Your task to perform on an android device: What's the weather? Image 0: 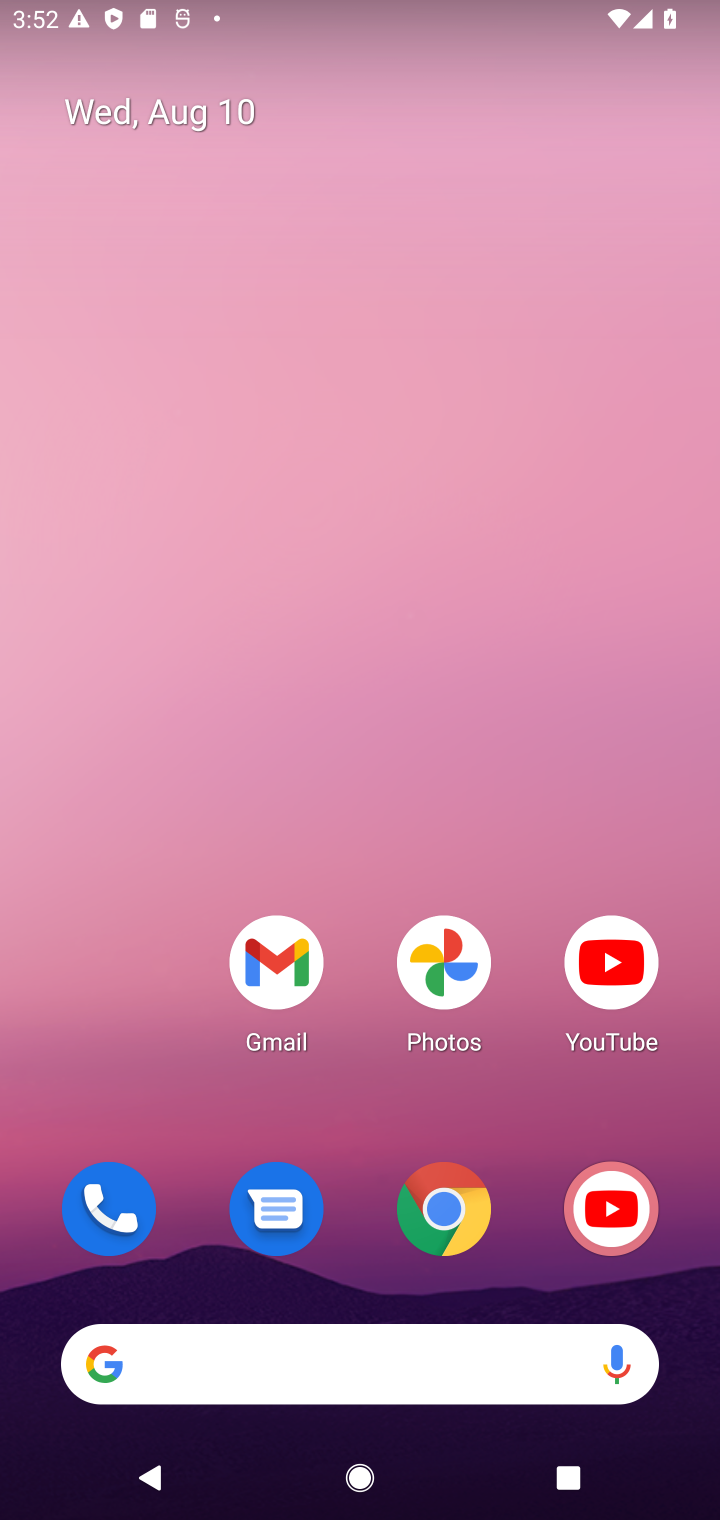
Step 0: click (349, 1365)
Your task to perform on an android device: What's the weather? Image 1: 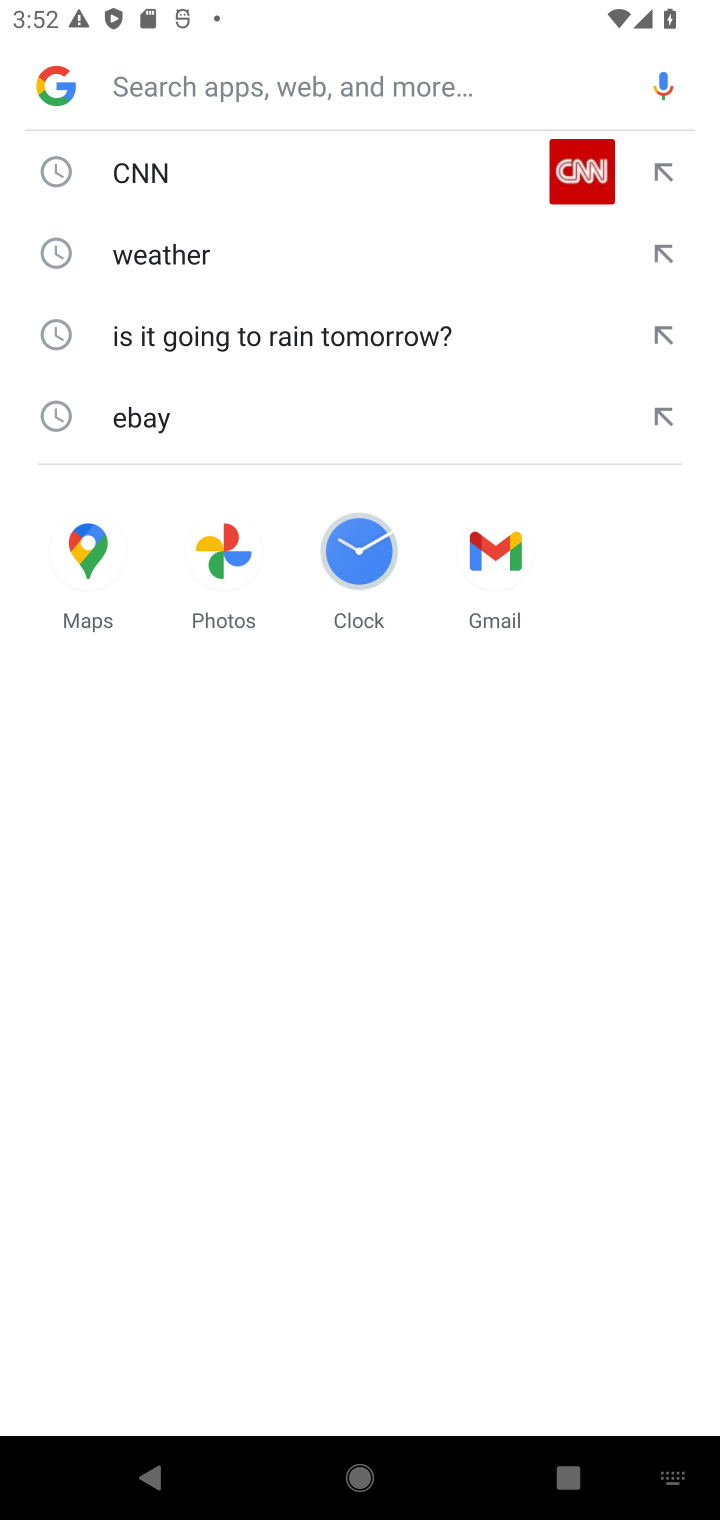
Step 1: click (305, 271)
Your task to perform on an android device: What's the weather? Image 2: 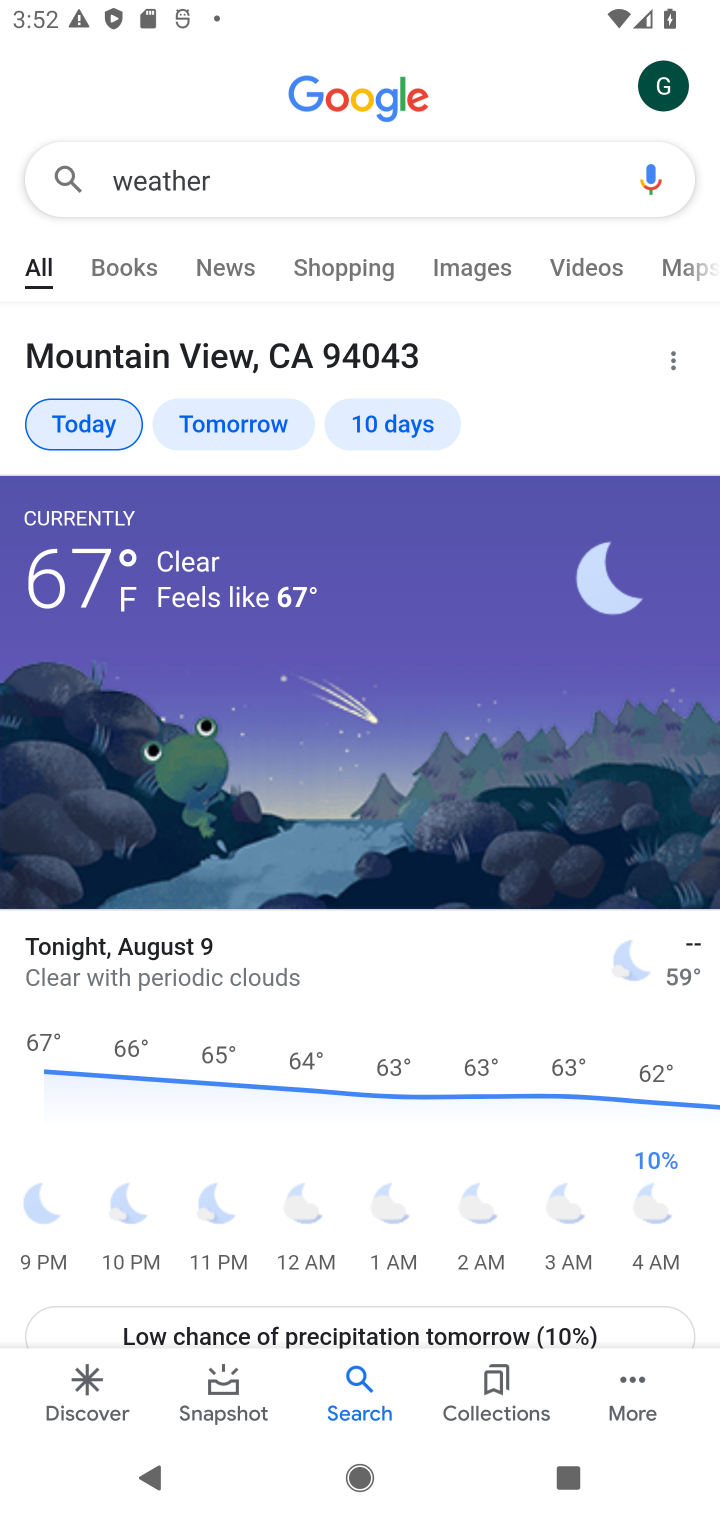
Step 2: task complete